Your task to perform on an android device: find snoozed emails in the gmail app Image 0: 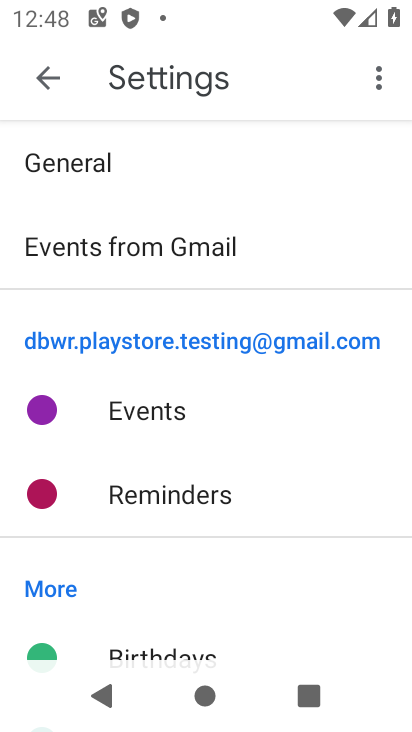
Step 0: press home button
Your task to perform on an android device: find snoozed emails in the gmail app Image 1: 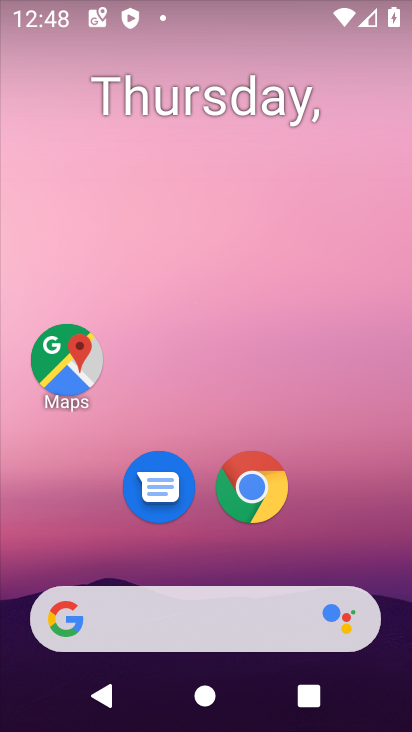
Step 1: drag from (335, 488) to (168, 15)
Your task to perform on an android device: find snoozed emails in the gmail app Image 2: 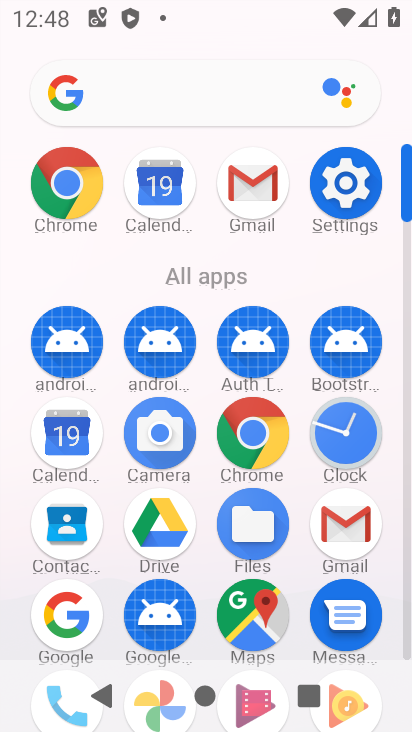
Step 2: click (260, 205)
Your task to perform on an android device: find snoozed emails in the gmail app Image 3: 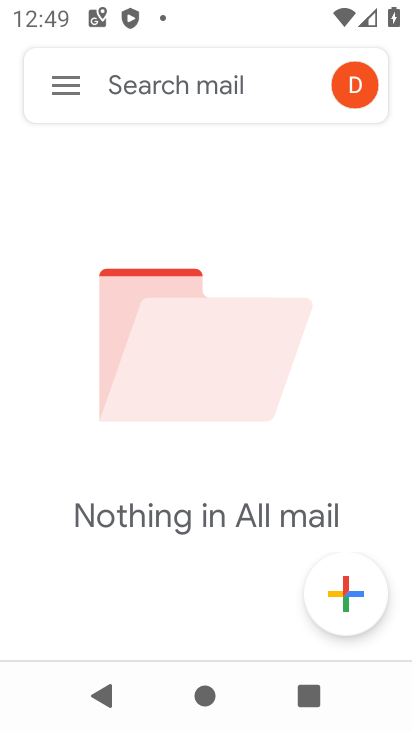
Step 3: click (65, 109)
Your task to perform on an android device: find snoozed emails in the gmail app Image 4: 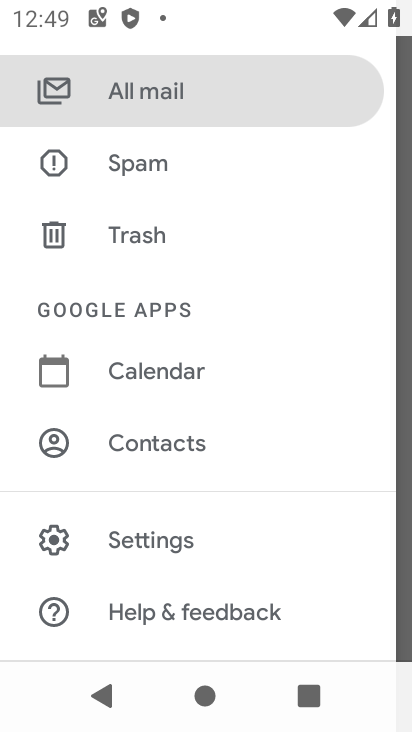
Step 4: drag from (201, 149) to (236, 649)
Your task to perform on an android device: find snoozed emails in the gmail app Image 5: 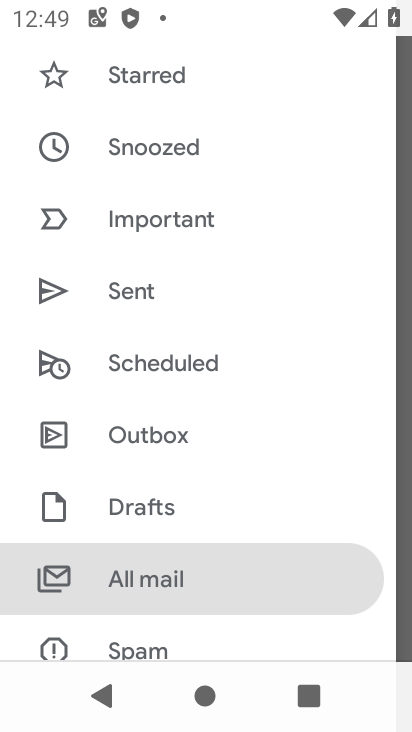
Step 5: click (187, 163)
Your task to perform on an android device: find snoozed emails in the gmail app Image 6: 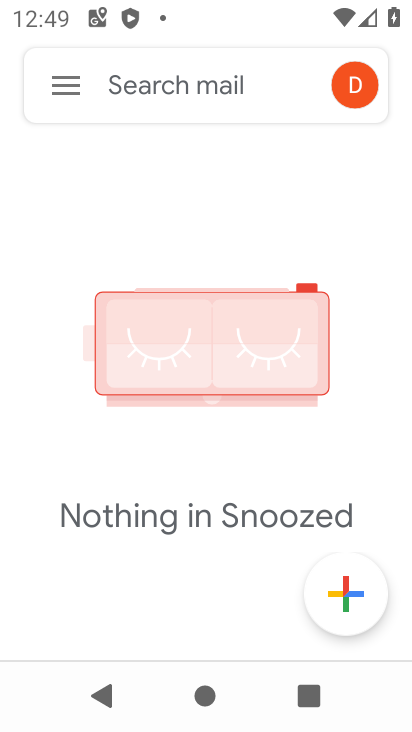
Step 6: task complete